Your task to perform on an android device: change the clock display to show seconds Image 0: 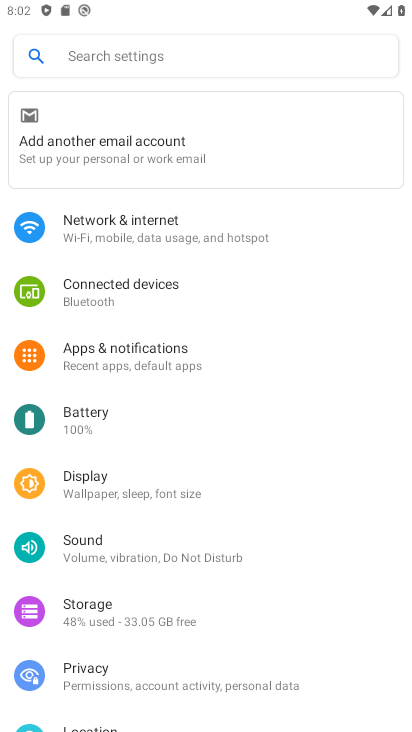
Step 0: press home button
Your task to perform on an android device: change the clock display to show seconds Image 1: 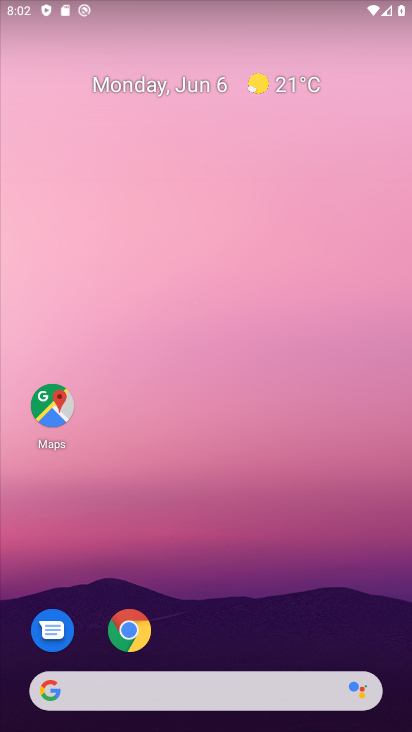
Step 1: drag from (210, 621) to (341, 88)
Your task to perform on an android device: change the clock display to show seconds Image 2: 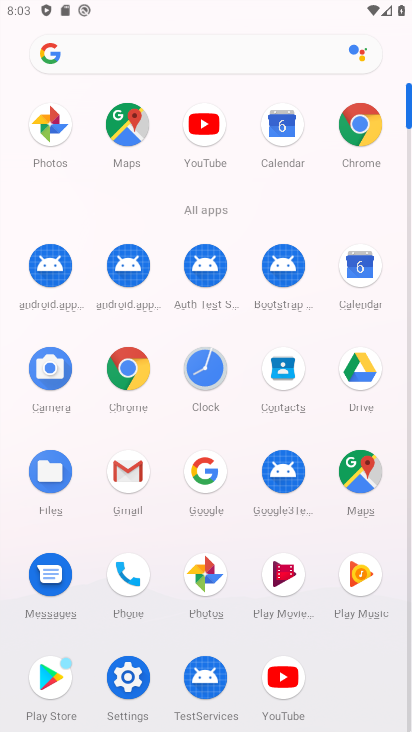
Step 2: click (207, 391)
Your task to perform on an android device: change the clock display to show seconds Image 3: 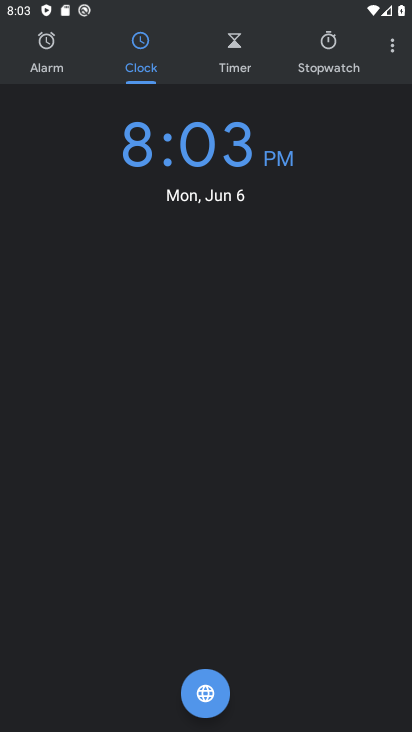
Step 3: click (382, 36)
Your task to perform on an android device: change the clock display to show seconds Image 4: 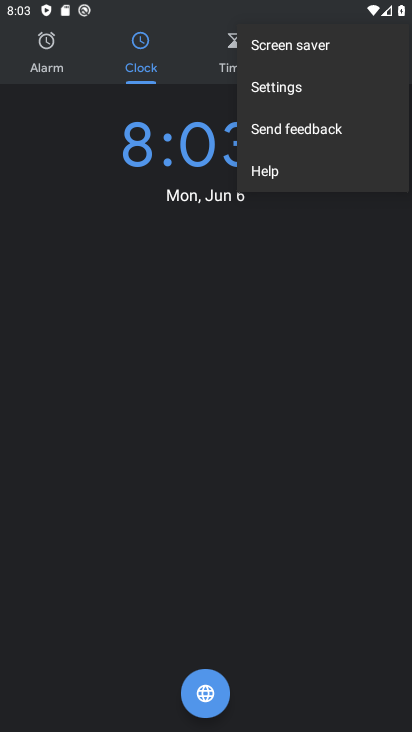
Step 4: click (349, 90)
Your task to perform on an android device: change the clock display to show seconds Image 5: 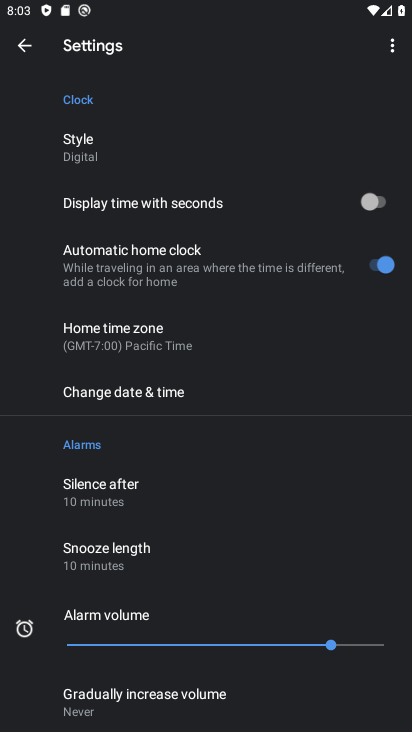
Step 5: click (381, 201)
Your task to perform on an android device: change the clock display to show seconds Image 6: 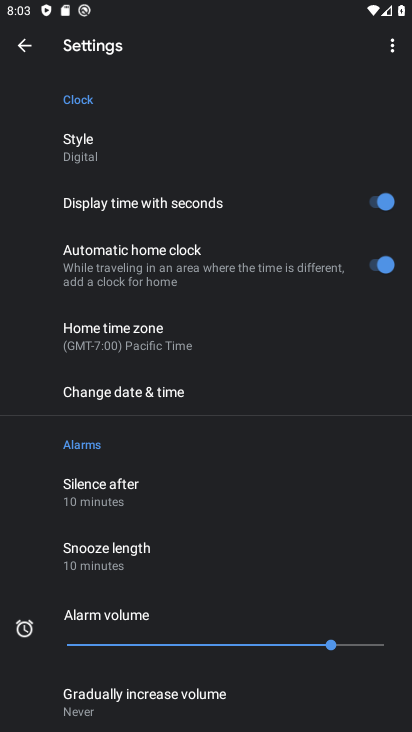
Step 6: task complete